Your task to perform on an android device: Open Android settings Image 0: 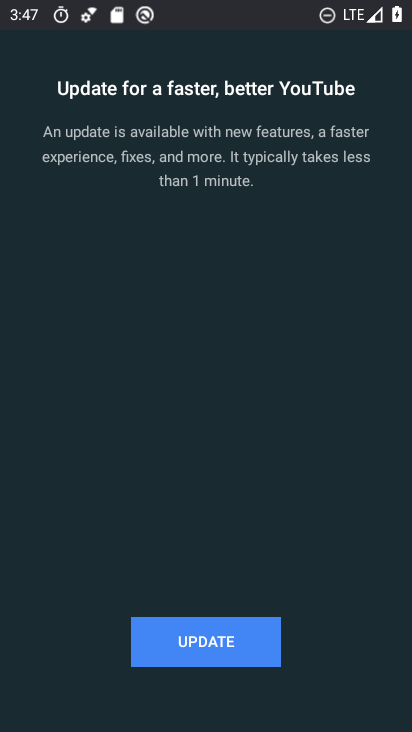
Step 0: press home button
Your task to perform on an android device: Open Android settings Image 1: 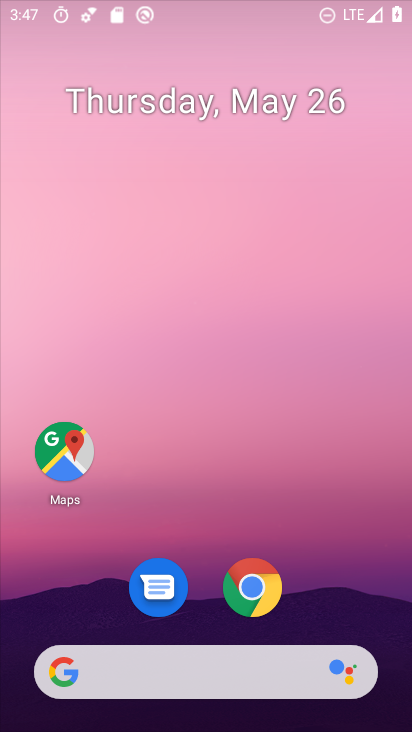
Step 1: drag from (320, 578) to (228, 162)
Your task to perform on an android device: Open Android settings Image 2: 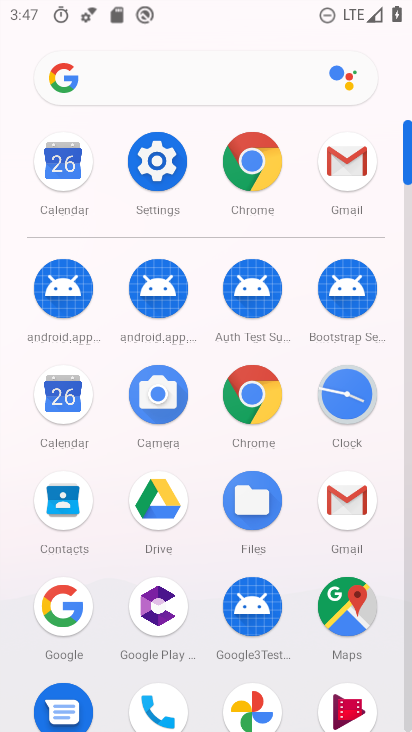
Step 2: click (154, 178)
Your task to perform on an android device: Open Android settings Image 3: 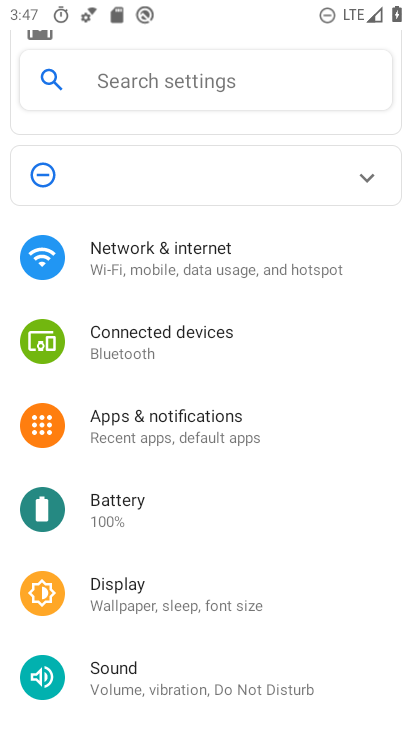
Step 3: task complete